Your task to perform on an android device: toggle sleep mode Image 0: 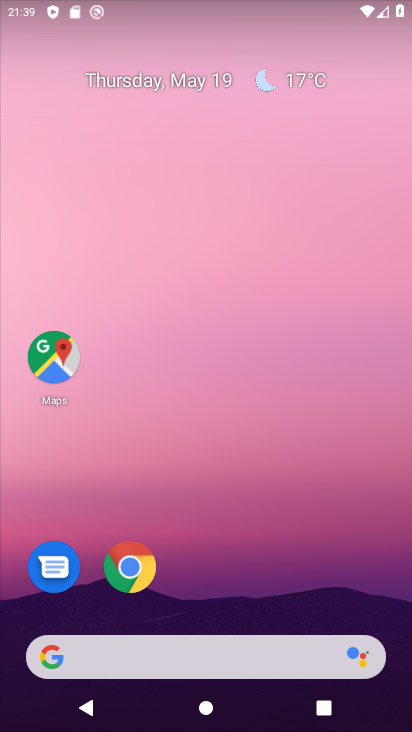
Step 0: drag from (339, 599) to (261, 355)
Your task to perform on an android device: toggle sleep mode Image 1: 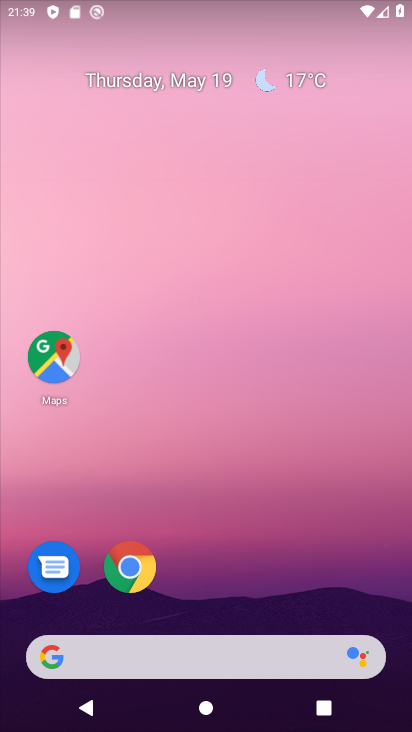
Step 1: drag from (262, 12) to (284, 306)
Your task to perform on an android device: toggle sleep mode Image 2: 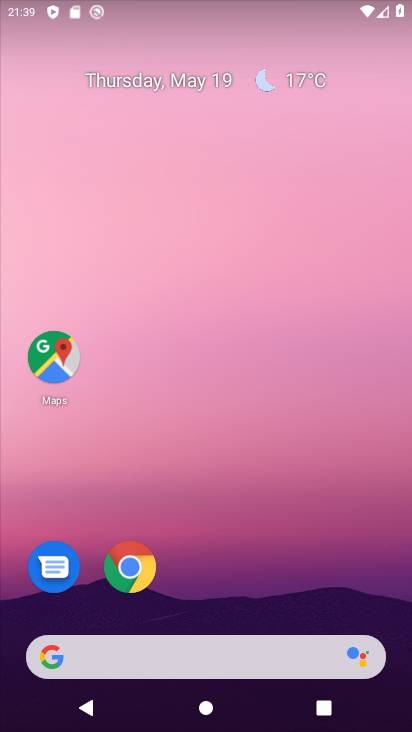
Step 2: drag from (351, 3) to (352, 270)
Your task to perform on an android device: toggle sleep mode Image 3: 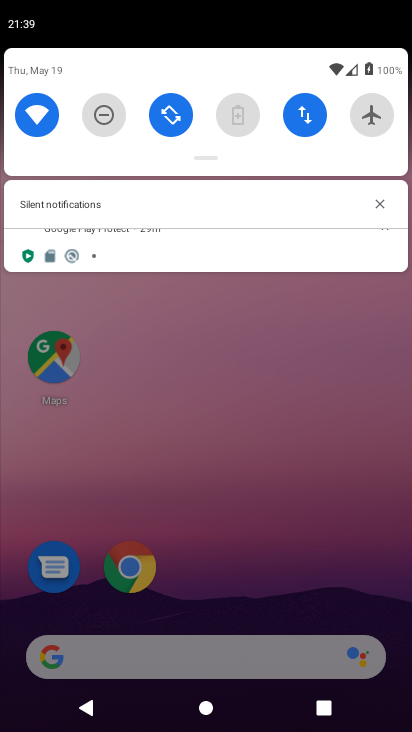
Step 3: drag from (352, 270) to (344, 455)
Your task to perform on an android device: toggle sleep mode Image 4: 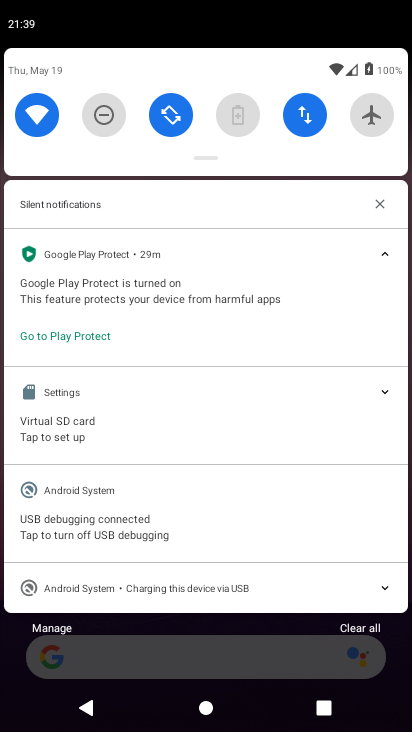
Step 4: drag from (269, 150) to (133, 728)
Your task to perform on an android device: toggle sleep mode Image 5: 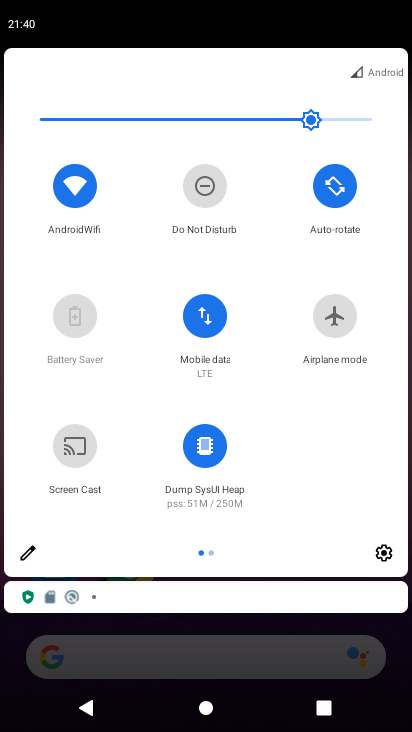
Step 5: click (22, 551)
Your task to perform on an android device: toggle sleep mode Image 6: 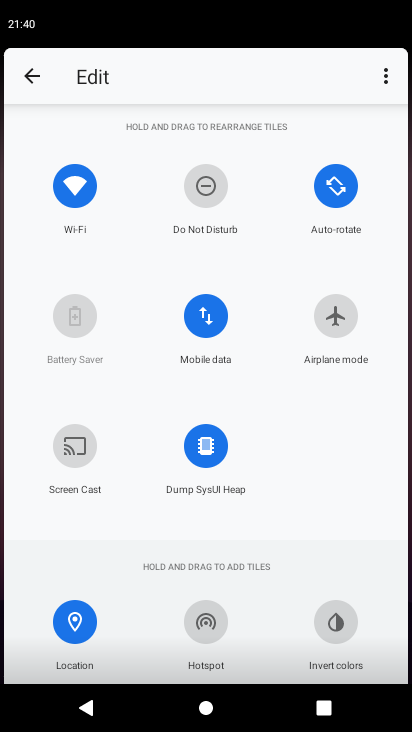
Step 6: task complete